Your task to perform on an android device: Open Chrome and go to the settings page Image 0: 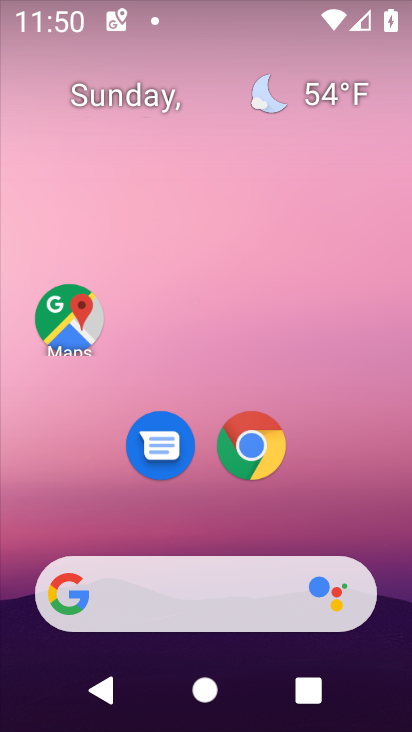
Step 0: drag from (393, 528) to (370, 49)
Your task to perform on an android device: Open Chrome and go to the settings page Image 1: 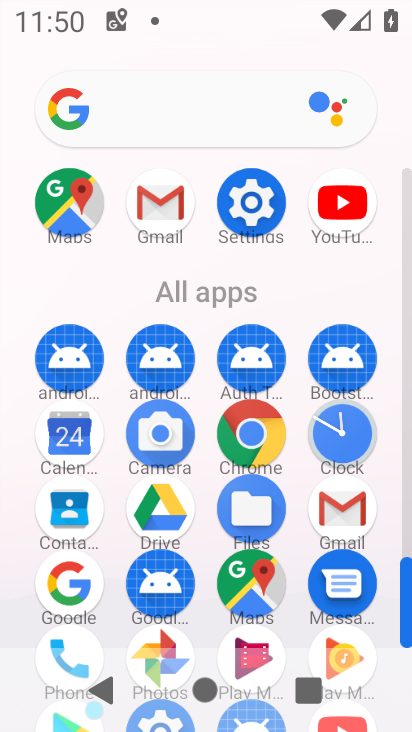
Step 1: click (257, 450)
Your task to perform on an android device: Open Chrome and go to the settings page Image 2: 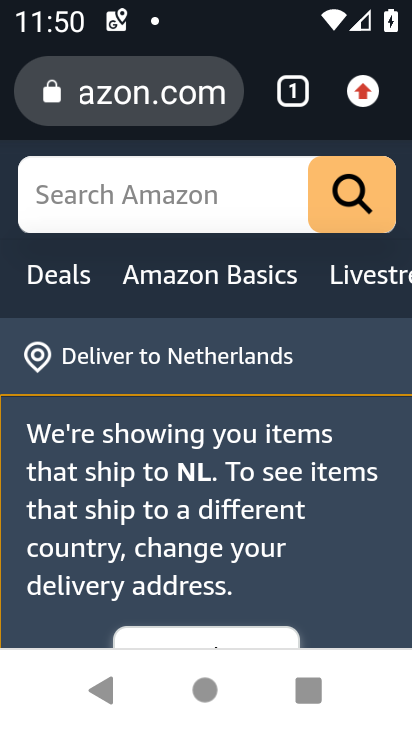
Step 2: task complete